Your task to perform on an android device: Search for vegetarian restaurants on Maps Image 0: 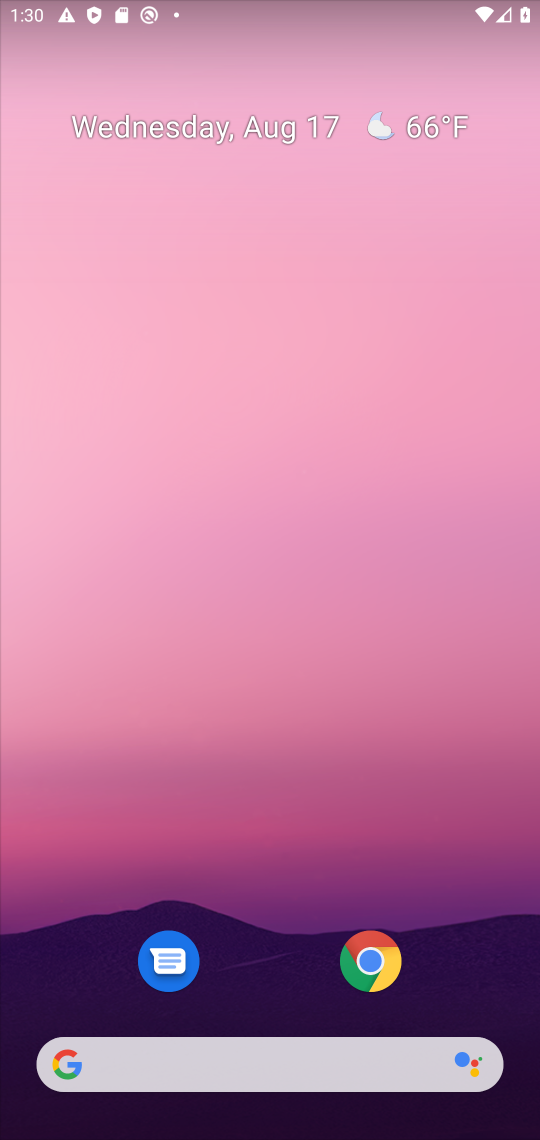
Step 0: drag from (346, 1003) to (416, 39)
Your task to perform on an android device: Search for vegetarian restaurants on Maps Image 1: 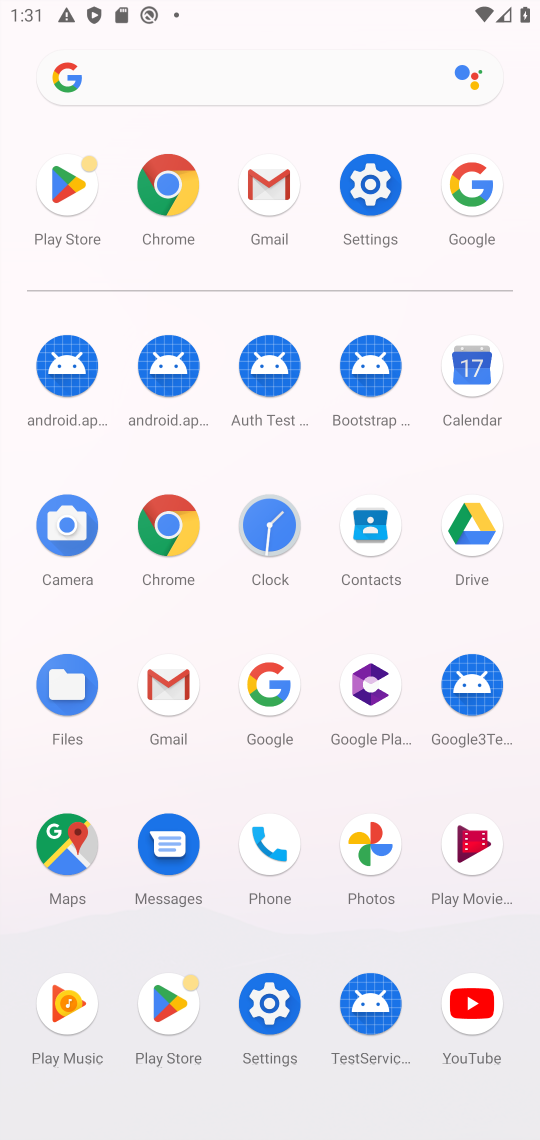
Step 1: click (72, 844)
Your task to perform on an android device: Search for vegetarian restaurants on Maps Image 2: 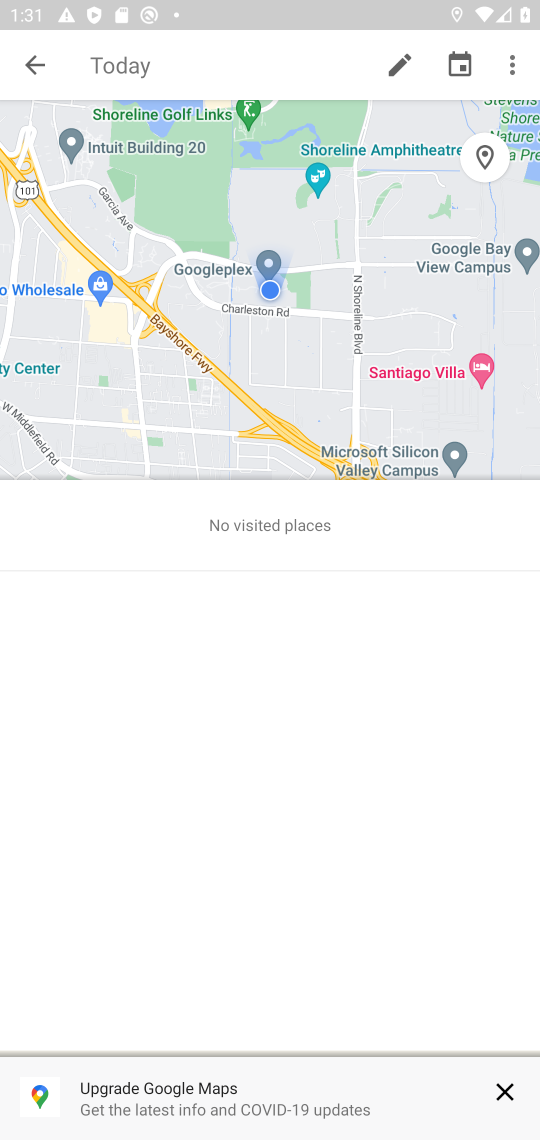
Step 2: click (37, 57)
Your task to perform on an android device: Search for vegetarian restaurants on Maps Image 3: 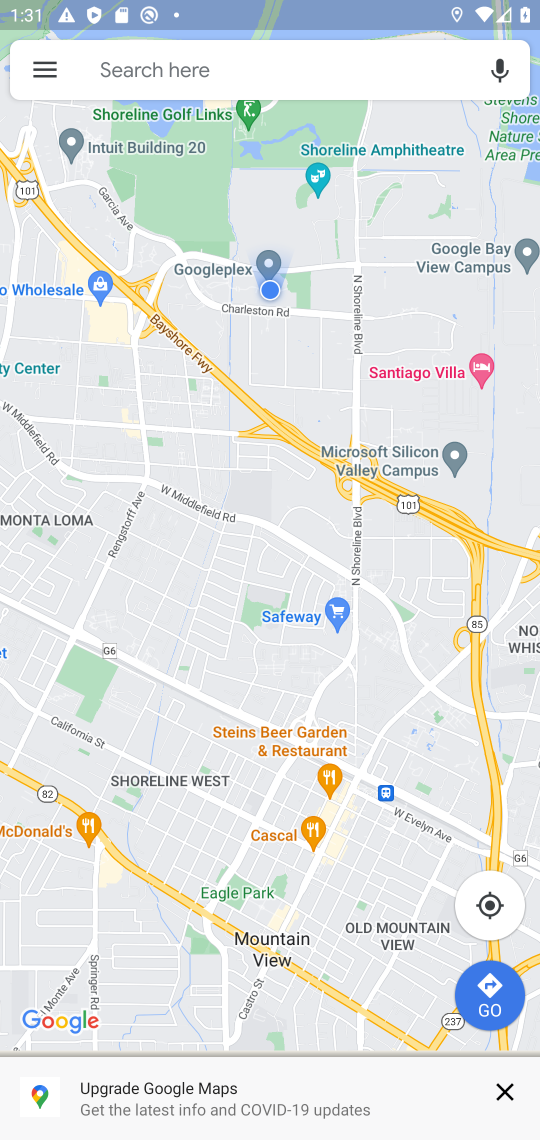
Step 3: click (341, 73)
Your task to perform on an android device: Search for vegetarian restaurants on Maps Image 4: 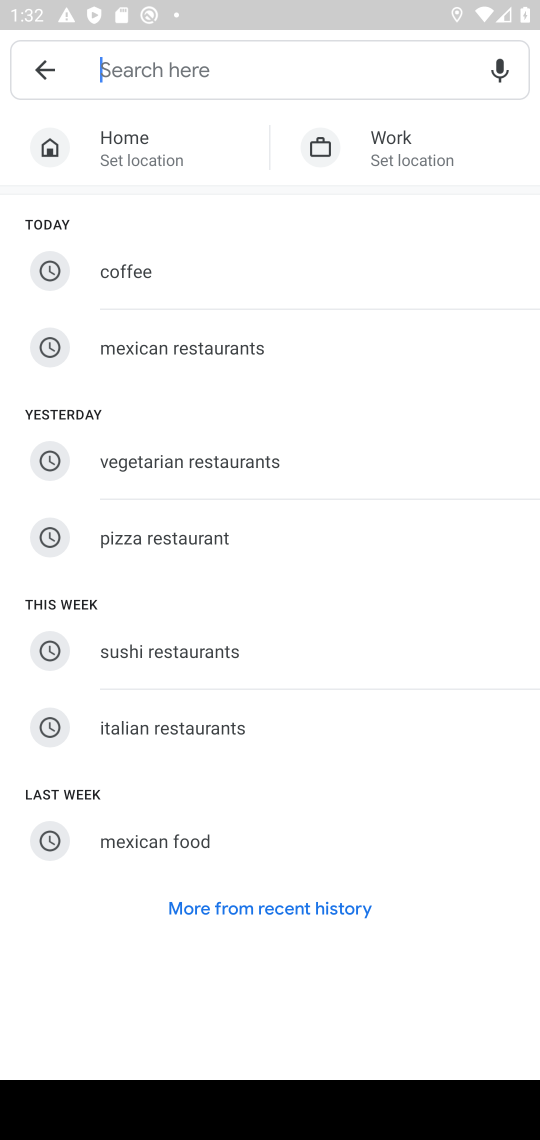
Step 4: click (106, 451)
Your task to perform on an android device: Search for vegetarian restaurants on Maps Image 5: 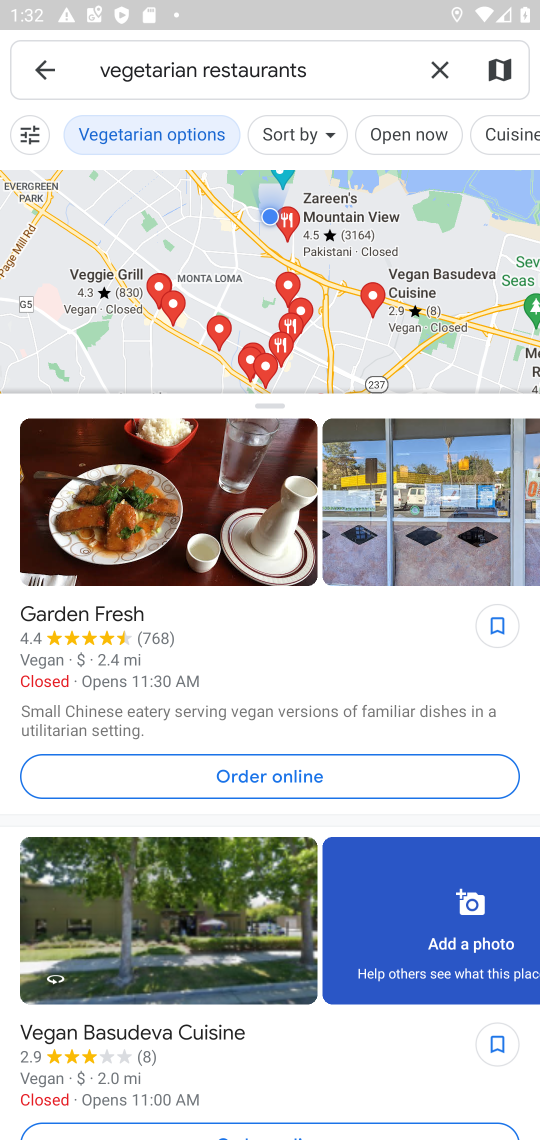
Step 5: task complete